Your task to perform on an android device: turn on improve location accuracy Image 0: 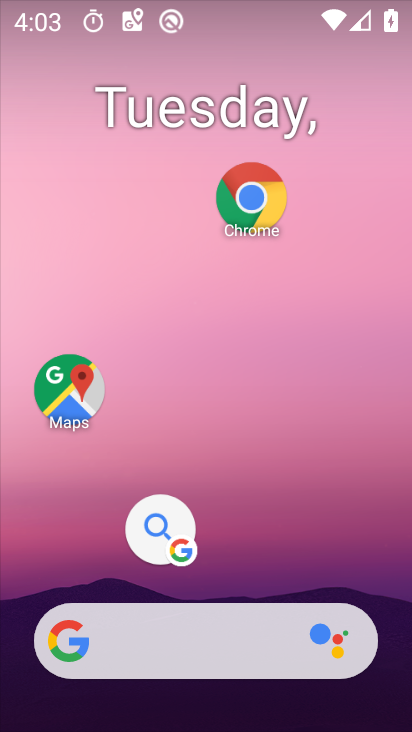
Step 0: drag from (209, 603) to (212, 255)
Your task to perform on an android device: turn on improve location accuracy Image 1: 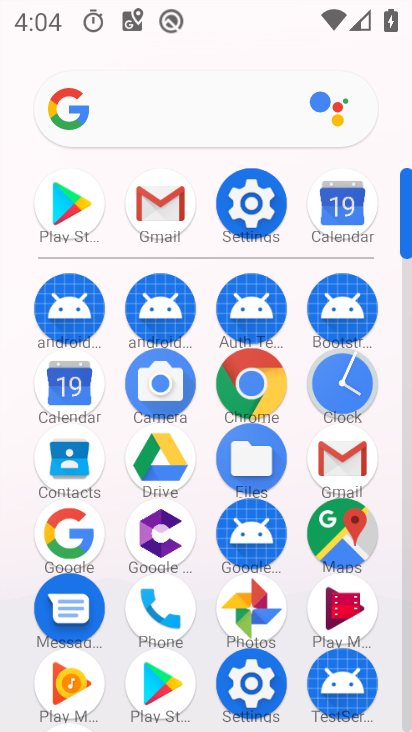
Step 1: click (254, 211)
Your task to perform on an android device: turn on improve location accuracy Image 2: 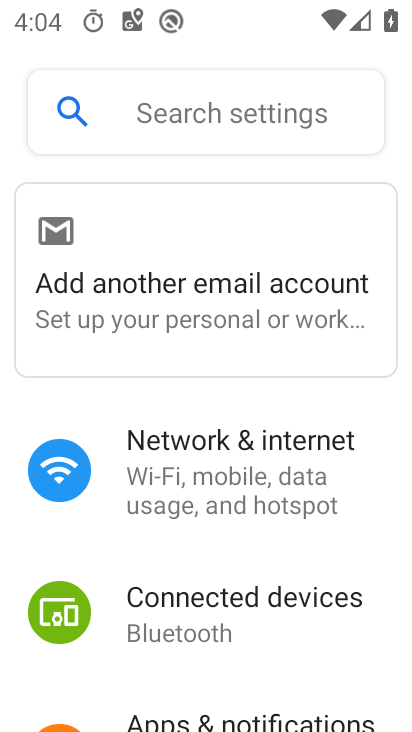
Step 2: drag from (253, 692) to (249, 295)
Your task to perform on an android device: turn on improve location accuracy Image 3: 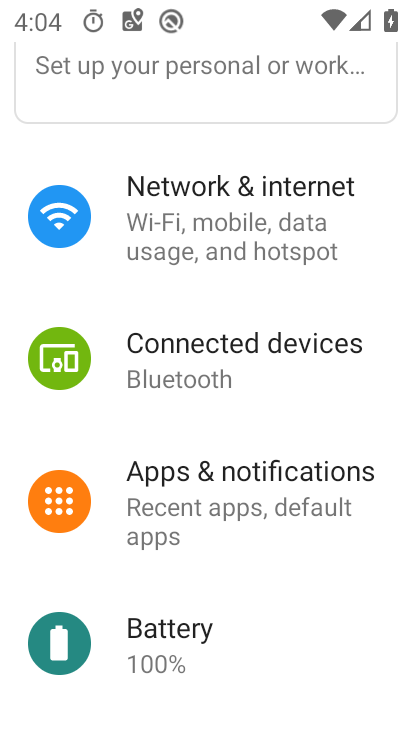
Step 3: drag from (210, 694) to (227, 370)
Your task to perform on an android device: turn on improve location accuracy Image 4: 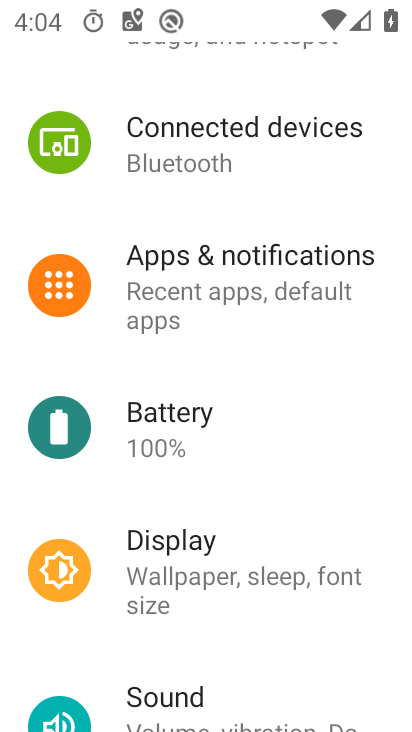
Step 4: drag from (206, 724) to (255, 317)
Your task to perform on an android device: turn on improve location accuracy Image 5: 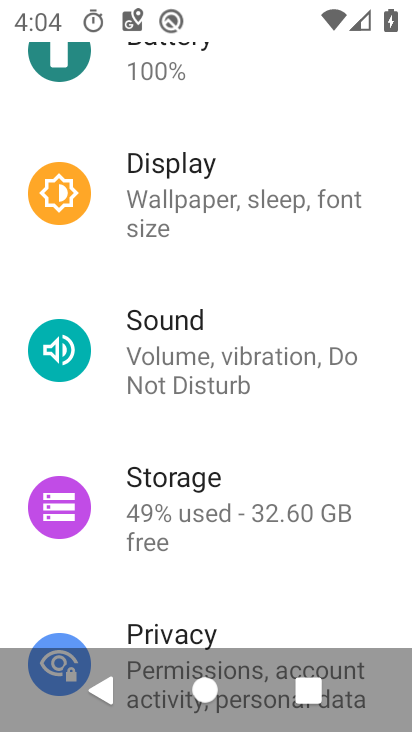
Step 5: drag from (245, 650) to (283, 263)
Your task to perform on an android device: turn on improve location accuracy Image 6: 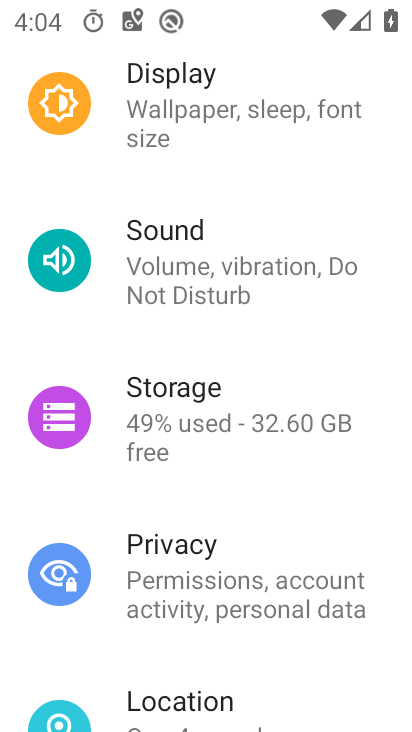
Step 6: click (202, 712)
Your task to perform on an android device: turn on improve location accuracy Image 7: 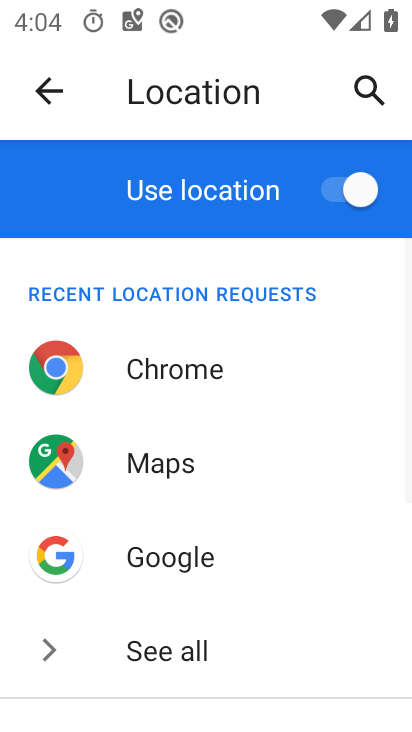
Step 7: drag from (235, 675) to (245, 166)
Your task to perform on an android device: turn on improve location accuracy Image 8: 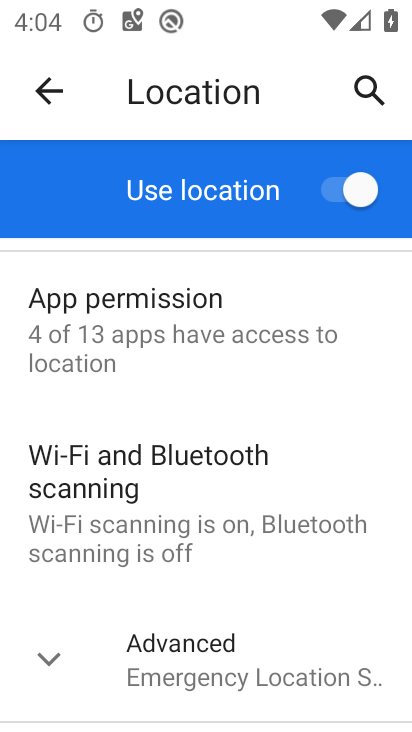
Step 8: click (199, 670)
Your task to perform on an android device: turn on improve location accuracy Image 9: 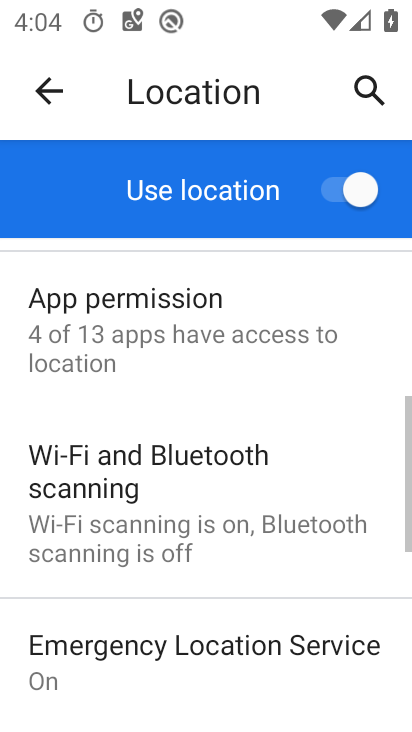
Step 9: drag from (278, 680) to (254, 371)
Your task to perform on an android device: turn on improve location accuracy Image 10: 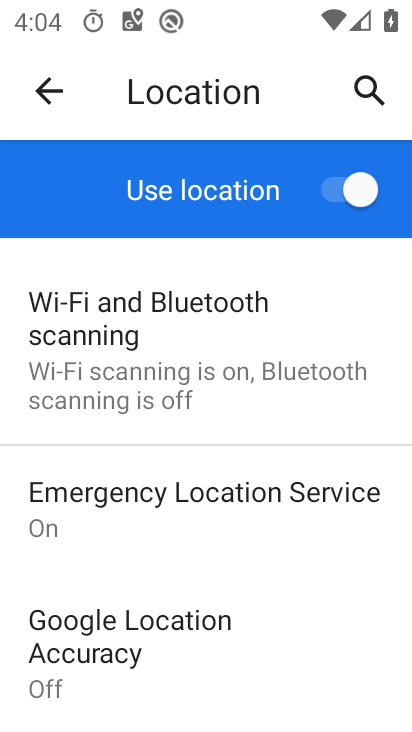
Step 10: click (101, 653)
Your task to perform on an android device: turn on improve location accuracy Image 11: 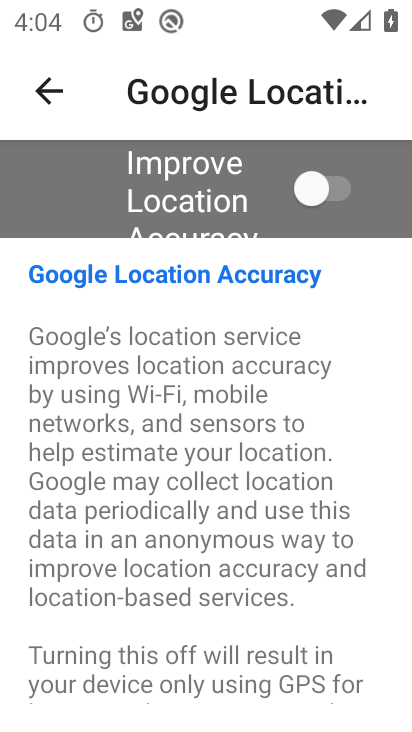
Step 11: click (343, 174)
Your task to perform on an android device: turn on improve location accuracy Image 12: 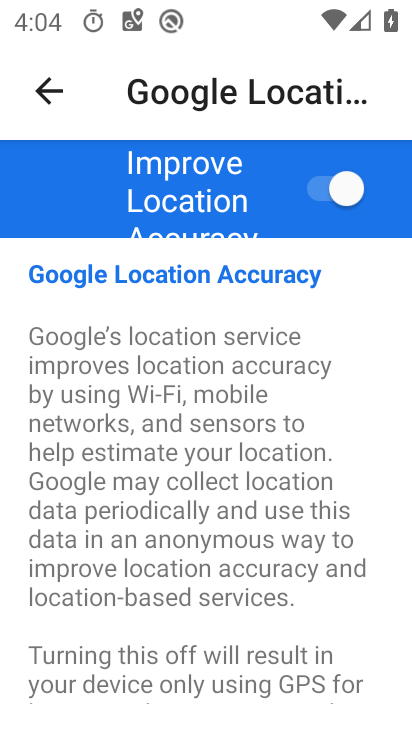
Step 12: task complete